Your task to perform on an android device: Open Youtube and go to "Your channel" Image 0: 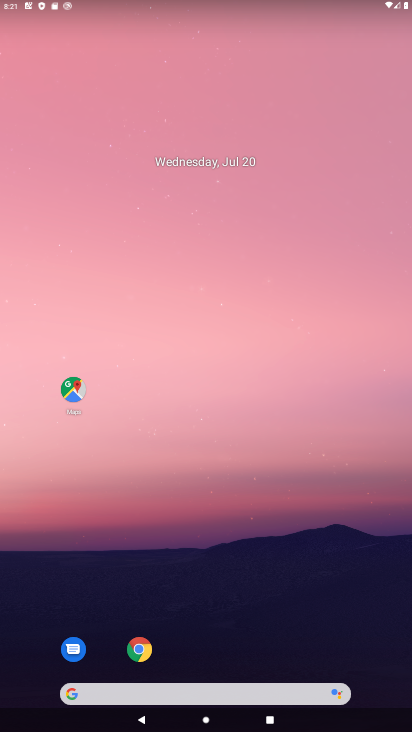
Step 0: press home button
Your task to perform on an android device: Open Youtube and go to "Your channel" Image 1: 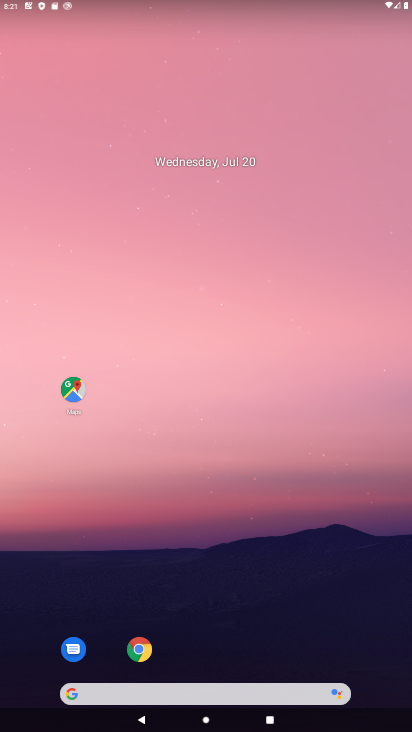
Step 1: drag from (196, 690) to (199, 102)
Your task to perform on an android device: Open Youtube and go to "Your channel" Image 2: 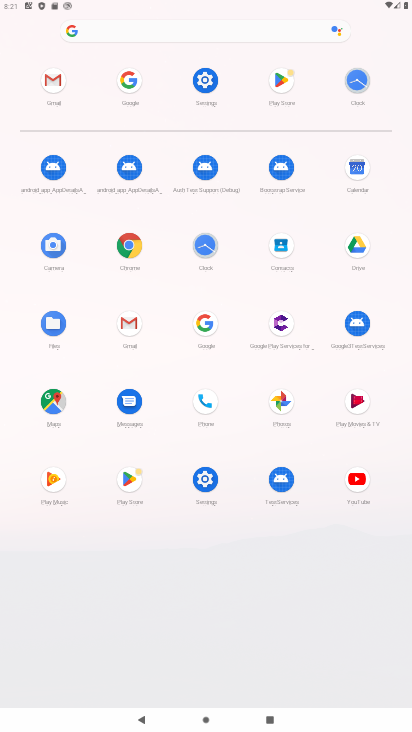
Step 2: click (357, 479)
Your task to perform on an android device: Open Youtube and go to "Your channel" Image 3: 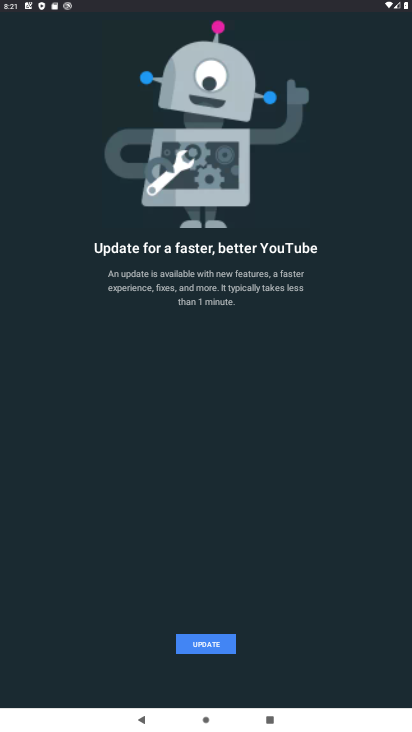
Step 3: click (209, 647)
Your task to perform on an android device: Open Youtube and go to "Your channel" Image 4: 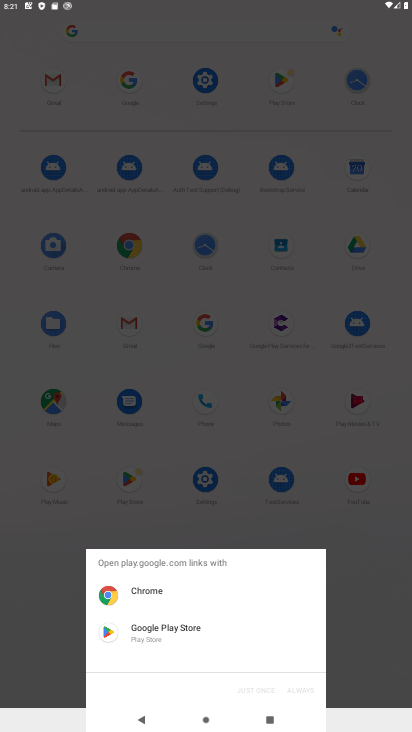
Step 4: click (176, 634)
Your task to perform on an android device: Open Youtube and go to "Your channel" Image 5: 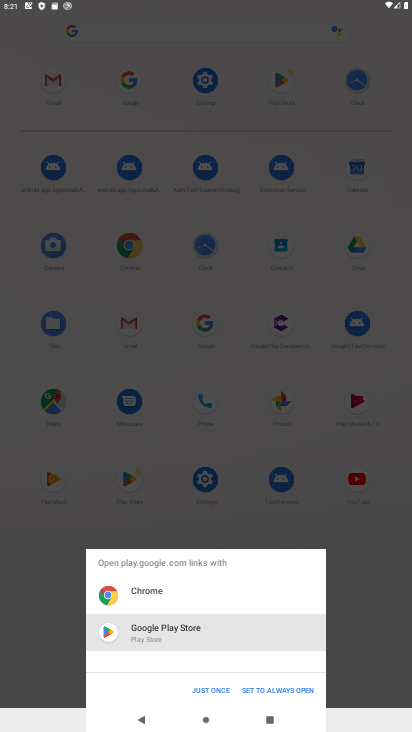
Step 5: click (206, 688)
Your task to perform on an android device: Open Youtube and go to "Your channel" Image 6: 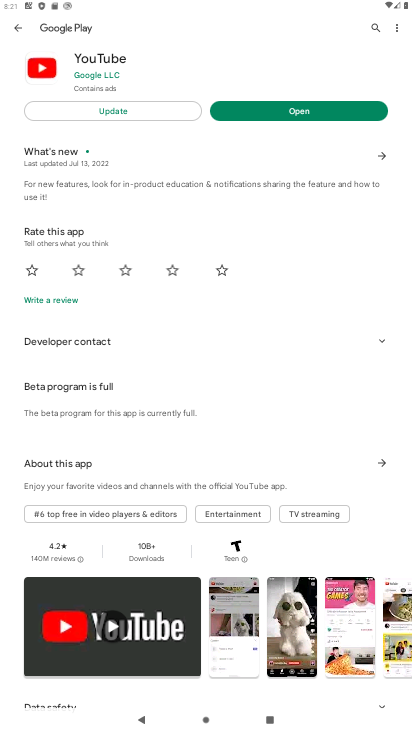
Step 6: click (119, 111)
Your task to perform on an android device: Open Youtube and go to "Your channel" Image 7: 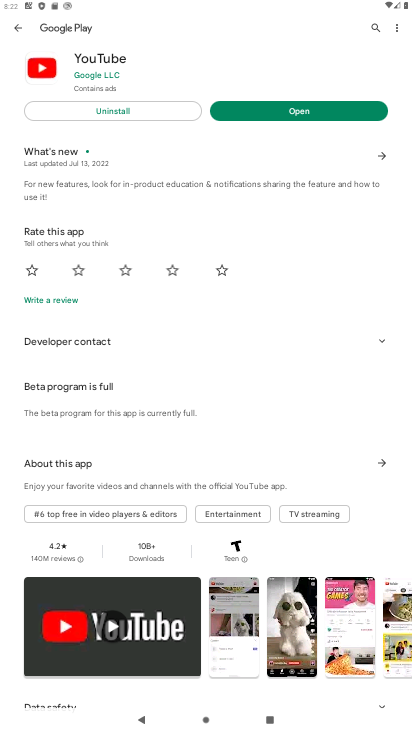
Step 7: click (301, 110)
Your task to perform on an android device: Open Youtube and go to "Your channel" Image 8: 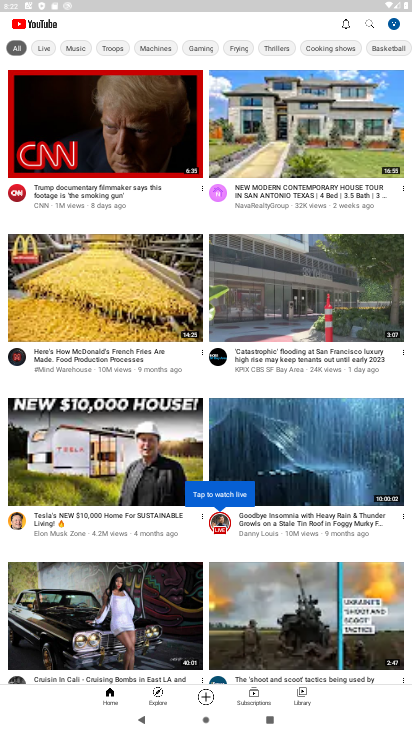
Step 8: click (397, 25)
Your task to perform on an android device: Open Youtube and go to "Your channel" Image 9: 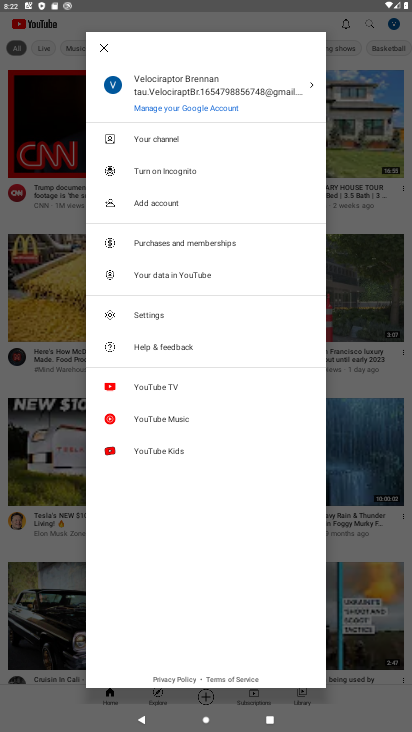
Step 9: click (173, 138)
Your task to perform on an android device: Open Youtube and go to "Your channel" Image 10: 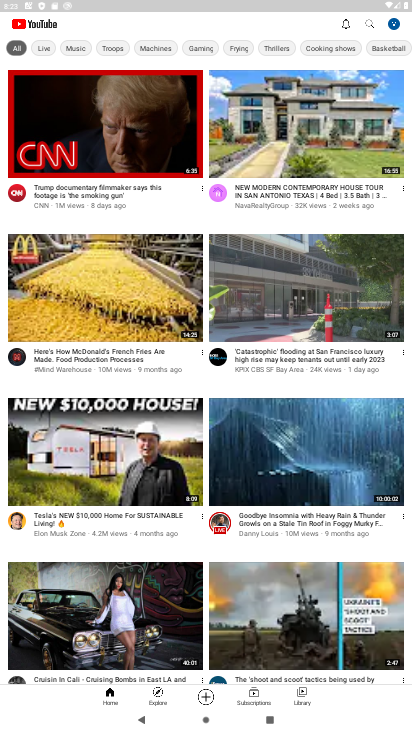
Step 10: task complete